Your task to perform on an android device: clear history in the chrome app Image 0: 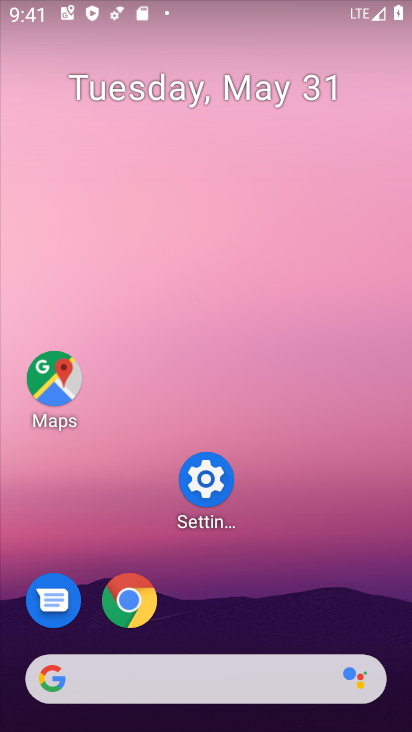
Step 0: click (402, 134)
Your task to perform on an android device: clear history in the chrome app Image 1: 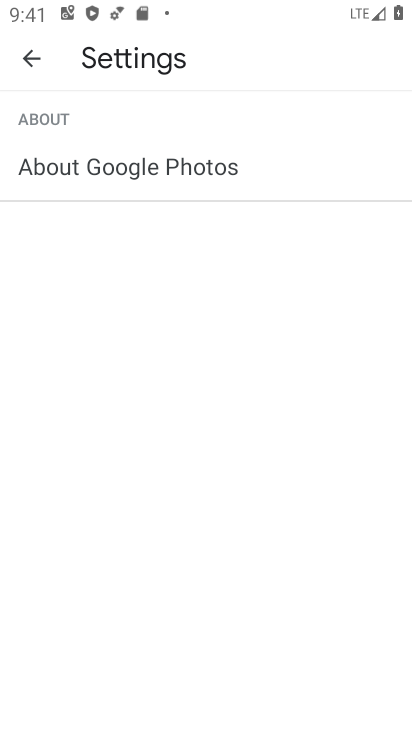
Step 1: press home button
Your task to perform on an android device: clear history in the chrome app Image 2: 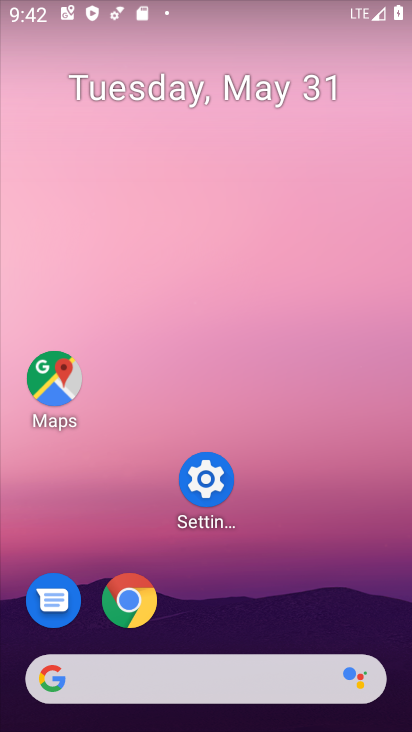
Step 2: click (133, 607)
Your task to perform on an android device: clear history in the chrome app Image 3: 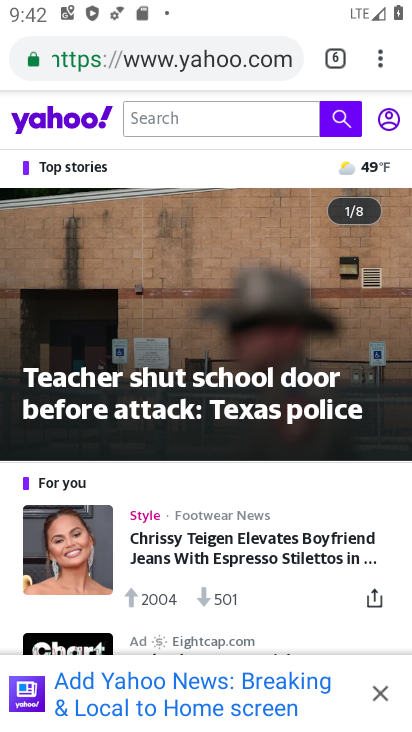
Step 3: click (372, 61)
Your task to perform on an android device: clear history in the chrome app Image 4: 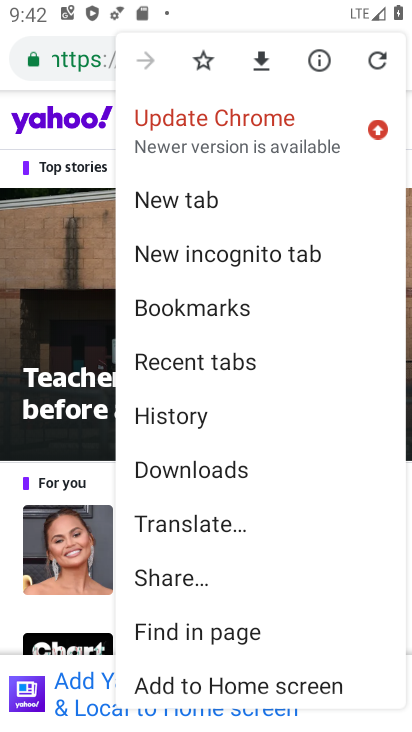
Step 4: click (163, 424)
Your task to perform on an android device: clear history in the chrome app Image 5: 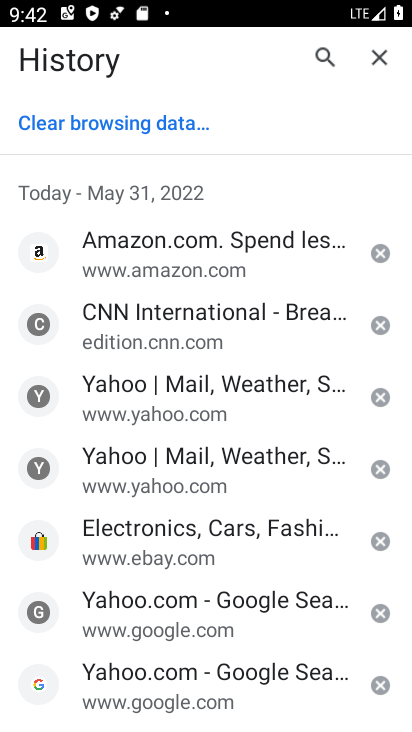
Step 5: click (142, 113)
Your task to perform on an android device: clear history in the chrome app Image 6: 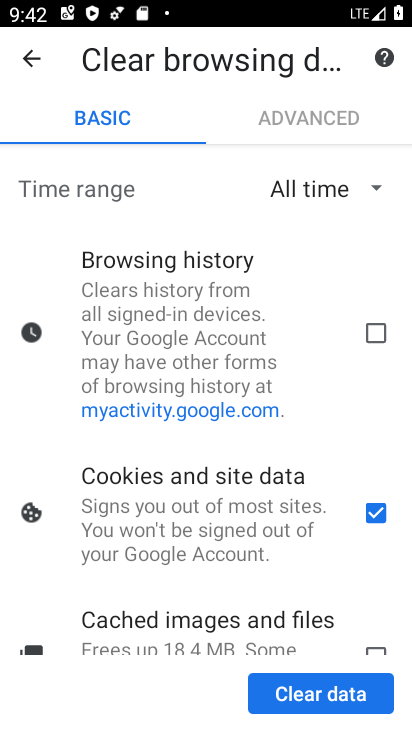
Step 6: click (371, 336)
Your task to perform on an android device: clear history in the chrome app Image 7: 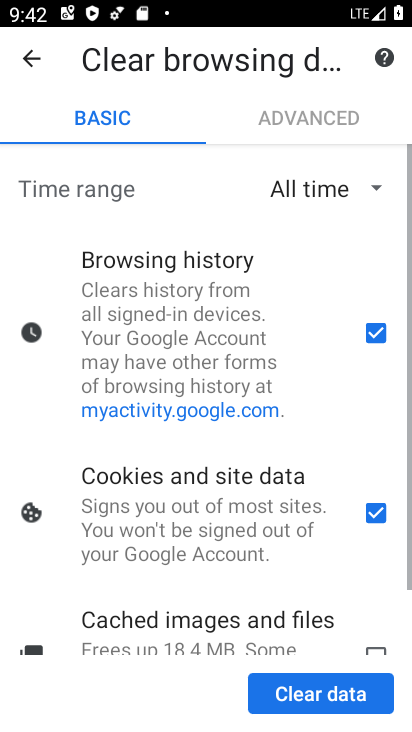
Step 7: click (374, 512)
Your task to perform on an android device: clear history in the chrome app Image 8: 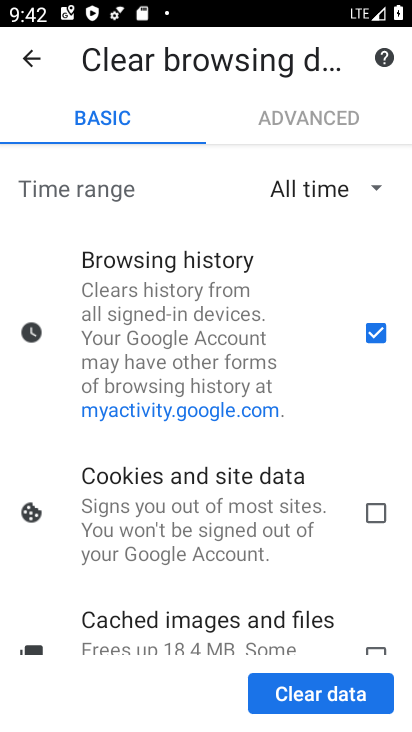
Step 8: click (314, 694)
Your task to perform on an android device: clear history in the chrome app Image 9: 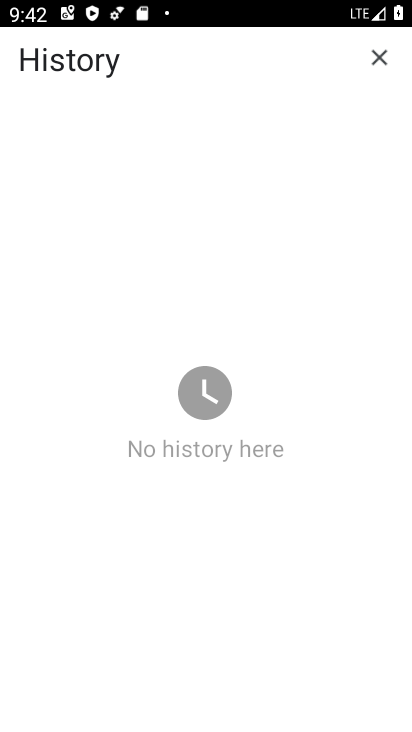
Step 9: task complete